Your task to perform on an android device: turn on the 12-hour format for clock Image 0: 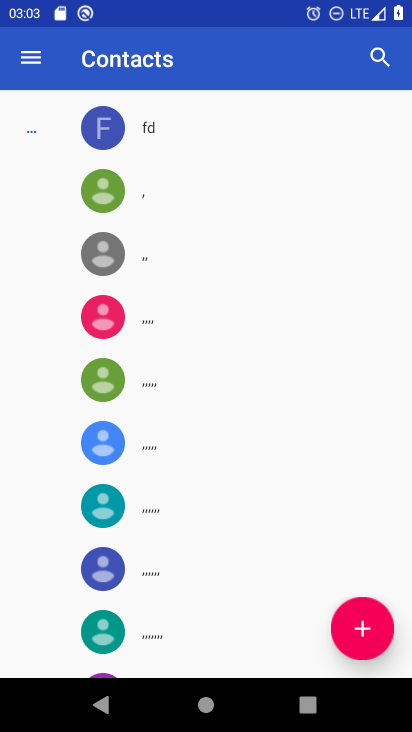
Step 0: press home button
Your task to perform on an android device: turn on the 12-hour format for clock Image 1: 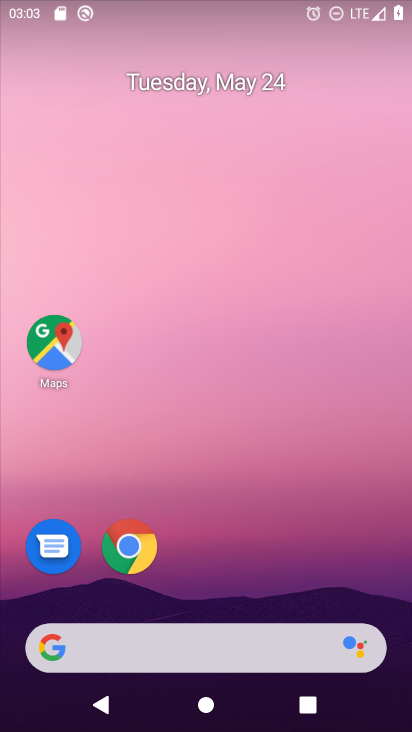
Step 1: drag from (251, 625) to (332, 0)
Your task to perform on an android device: turn on the 12-hour format for clock Image 2: 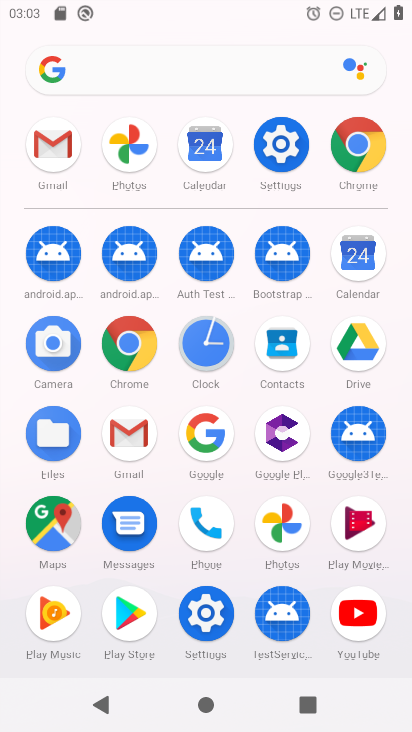
Step 2: click (210, 350)
Your task to perform on an android device: turn on the 12-hour format for clock Image 3: 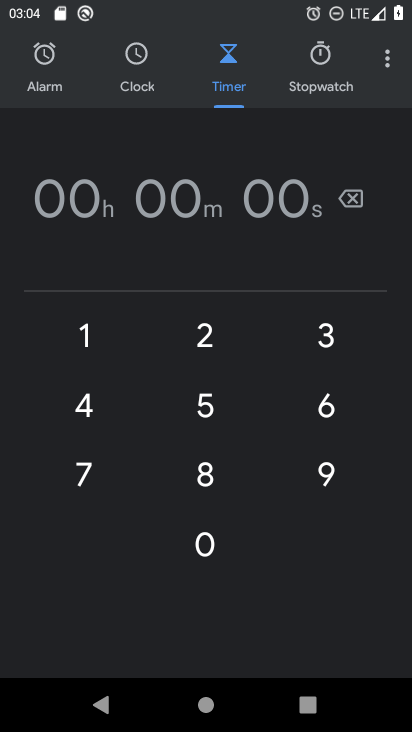
Step 3: click (381, 70)
Your task to perform on an android device: turn on the 12-hour format for clock Image 4: 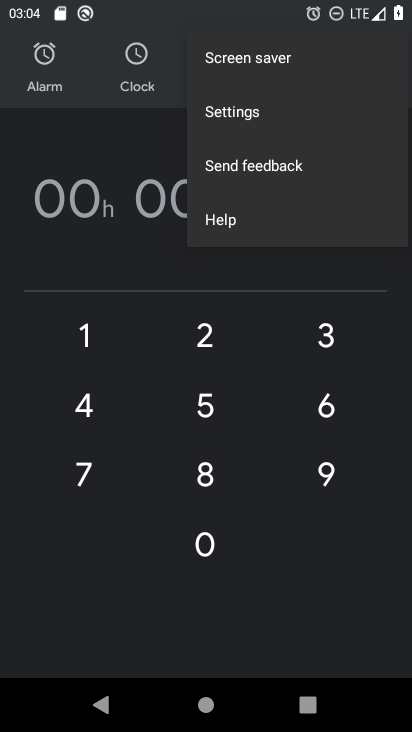
Step 4: click (257, 112)
Your task to perform on an android device: turn on the 12-hour format for clock Image 5: 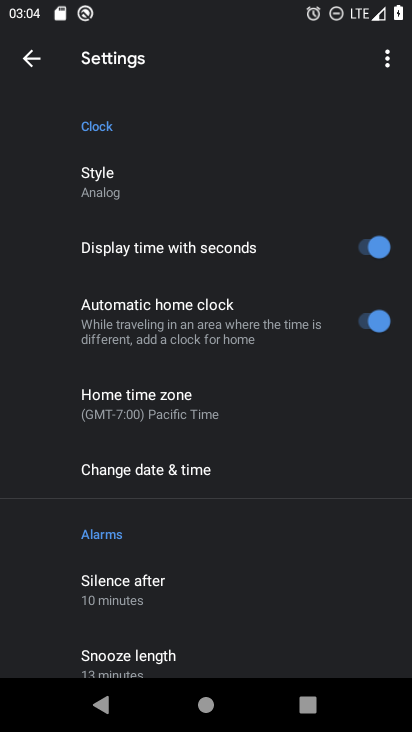
Step 5: click (193, 478)
Your task to perform on an android device: turn on the 12-hour format for clock Image 6: 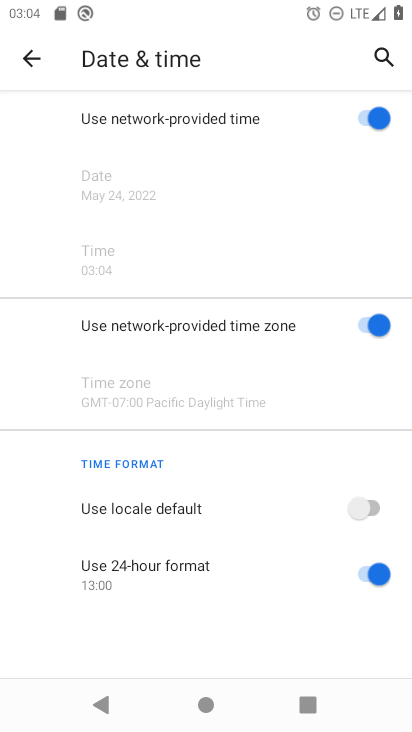
Step 6: click (364, 575)
Your task to perform on an android device: turn on the 12-hour format for clock Image 7: 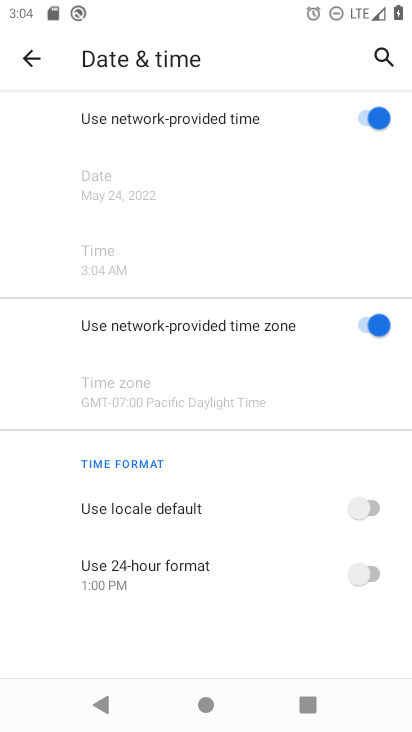
Step 7: task complete